Your task to perform on an android device: Open the Play Movies app and select the watchlist tab. Image 0: 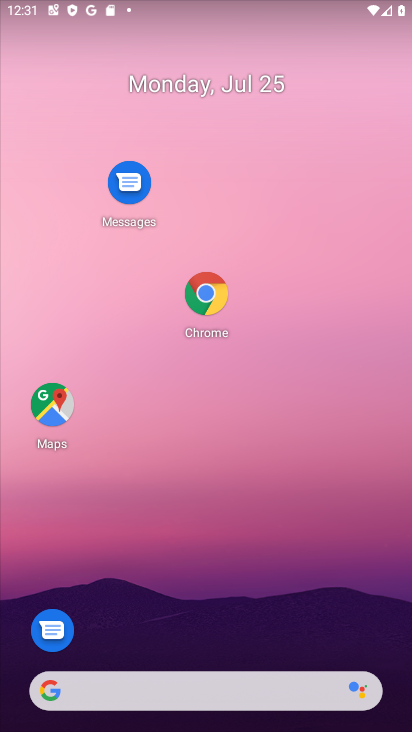
Step 0: drag from (326, 624) to (266, 40)
Your task to perform on an android device: Open the Play Movies app and select the watchlist tab. Image 1: 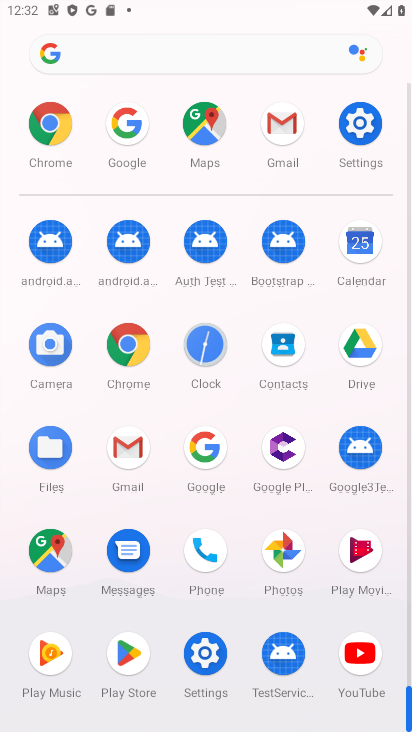
Step 1: click (123, 654)
Your task to perform on an android device: Open the Play Movies app and select the watchlist tab. Image 2: 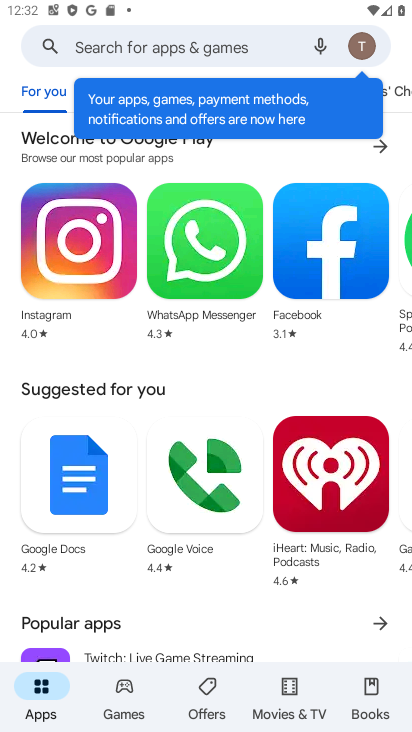
Step 2: press home button
Your task to perform on an android device: Open the Play Movies app and select the watchlist tab. Image 3: 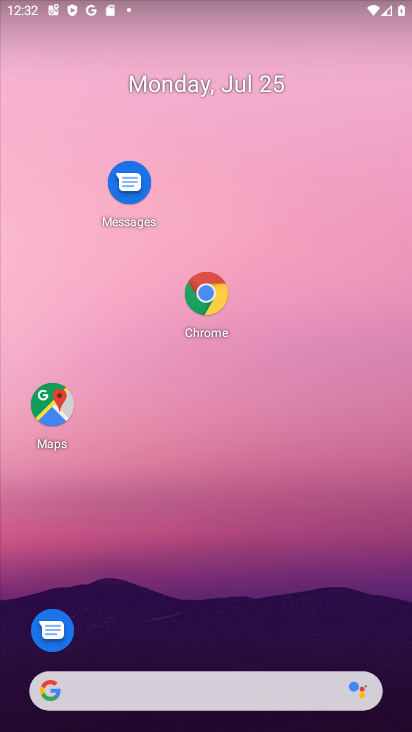
Step 3: drag from (259, 603) to (152, 29)
Your task to perform on an android device: Open the Play Movies app and select the watchlist tab. Image 4: 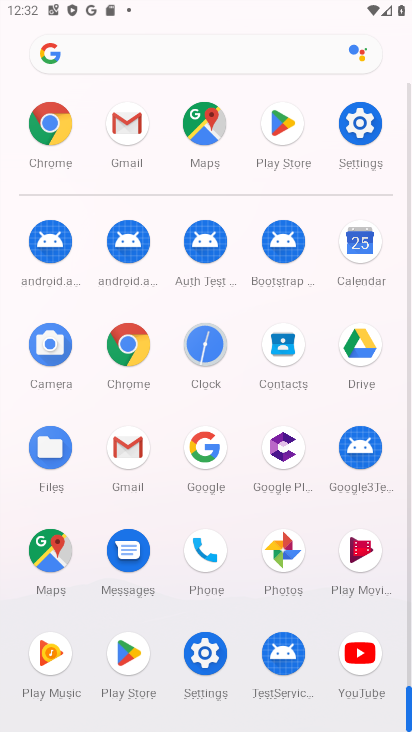
Step 4: click (357, 536)
Your task to perform on an android device: Open the Play Movies app and select the watchlist tab. Image 5: 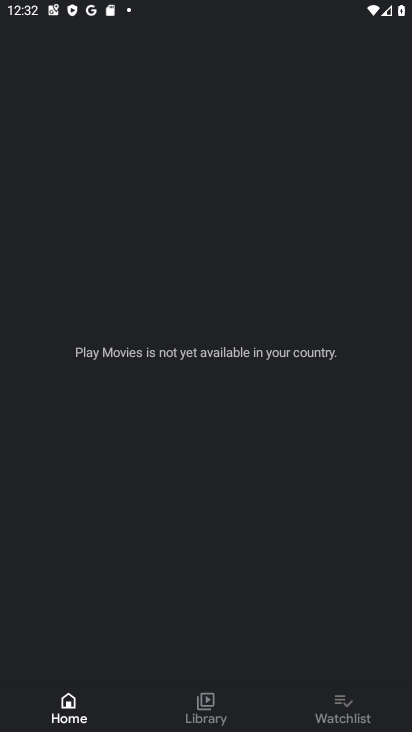
Step 5: click (348, 703)
Your task to perform on an android device: Open the Play Movies app and select the watchlist tab. Image 6: 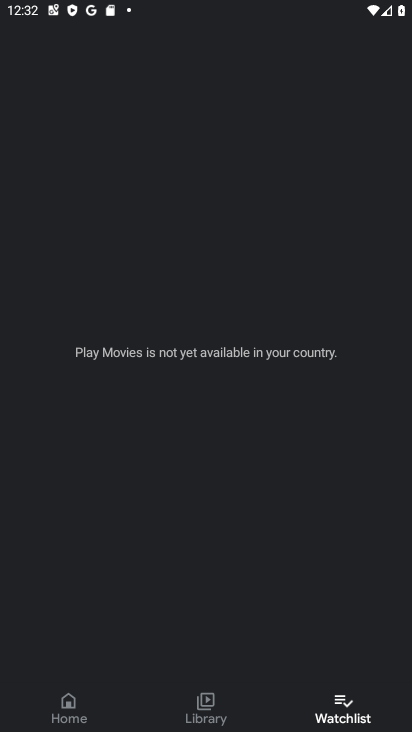
Step 6: task complete